Your task to perform on an android device: delete browsing data in the chrome app Image 0: 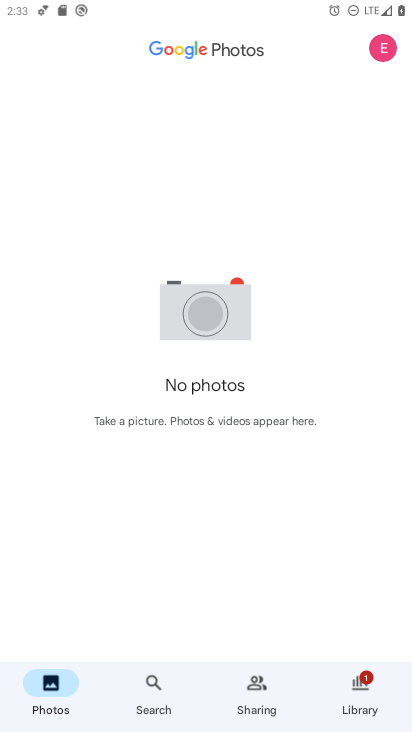
Step 0: press home button
Your task to perform on an android device: delete browsing data in the chrome app Image 1: 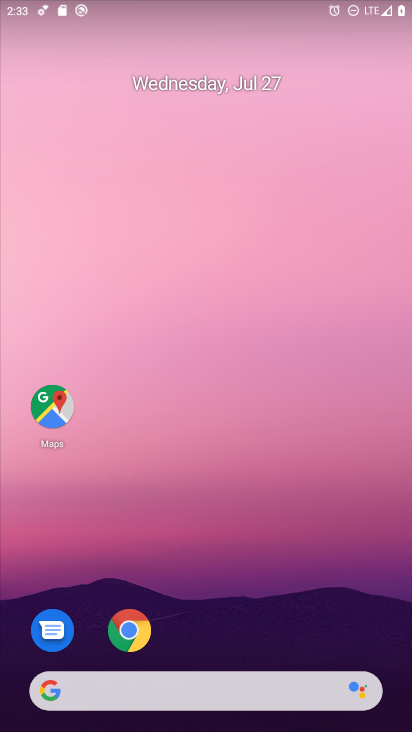
Step 1: click (130, 631)
Your task to perform on an android device: delete browsing data in the chrome app Image 2: 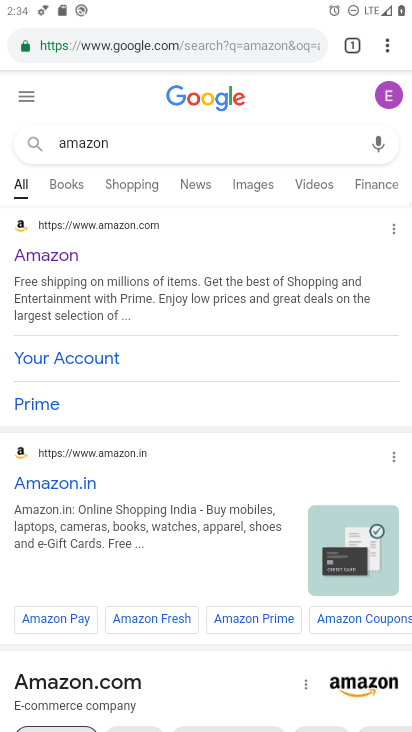
Step 2: click (387, 51)
Your task to perform on an android device: delete browsing data in the chrome app Image 3: 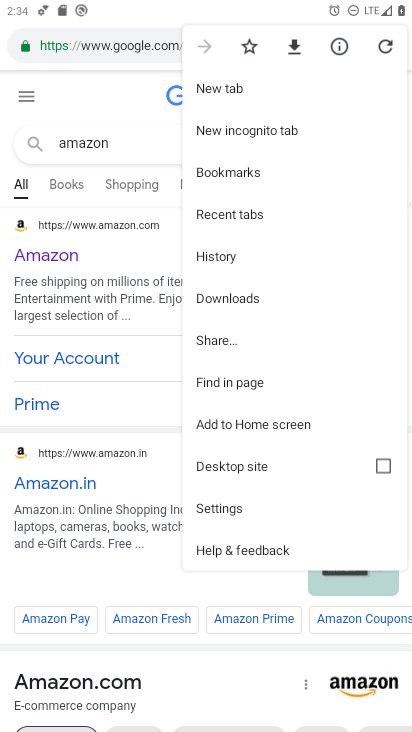
Step 3: click (212, 255)
Your task to perform on an android device: delete browsing data in the chrome app Image 4: 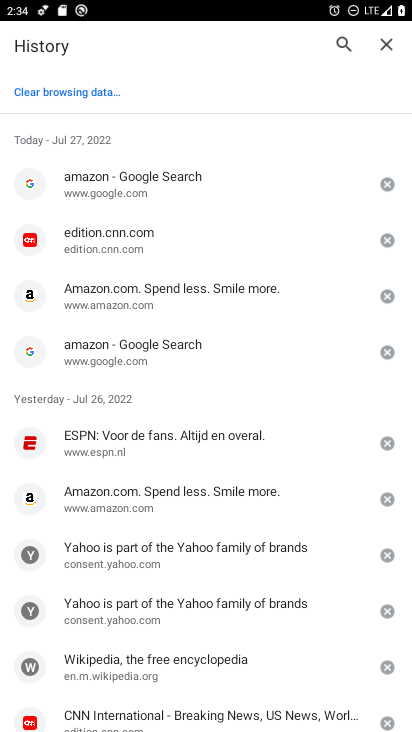
Step 4: click (73, 90)
Your task to perform on an android device: delete browsing data in the chrome app Image 5: 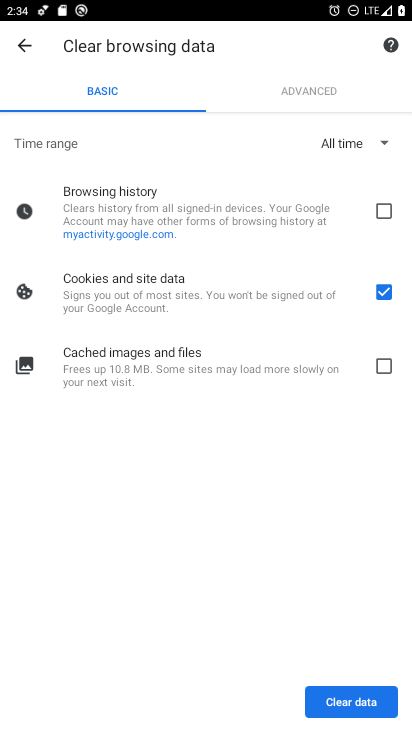
Step 5: click (384, 209)
Your task to perform on an android device: delete browsing data in the chrome app Image 6: 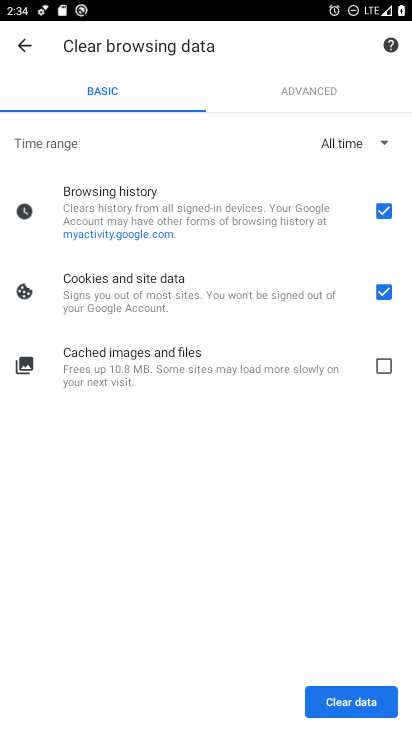
Step 6: click (385, 292)
Your task to perform on an android device: delete browsing data in the chrome app Image 7: 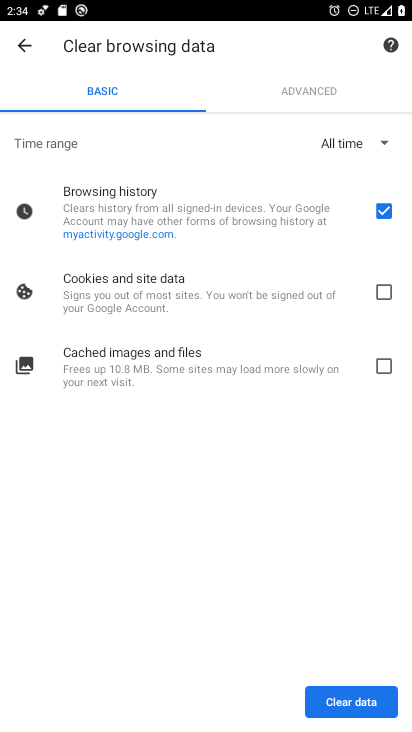
Step 7: click (360, 701)
Your task to perform on an android device: delete browsing data in the chrome app Image 8: 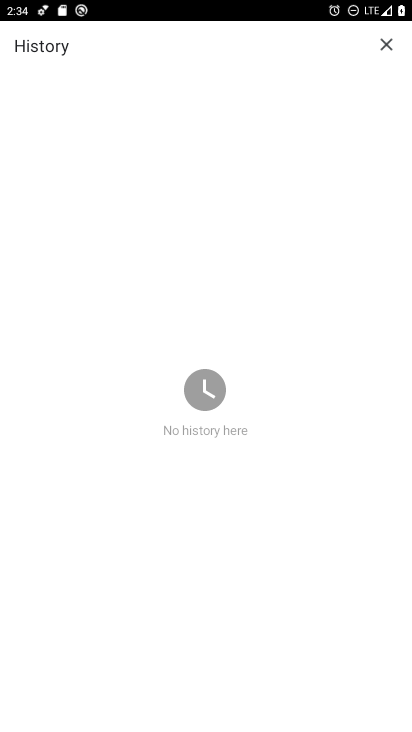
Step 8: task complete